Your task to perform on an android device: Open the phone app and click the voicemail tab. Image 0: 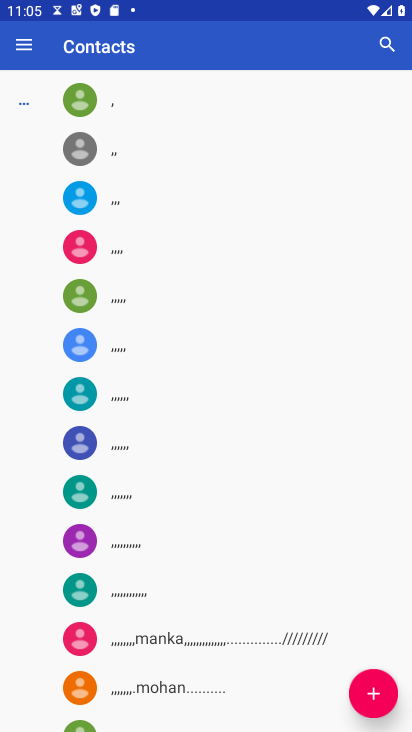
Step 0: press home button
Your task to perform on an android device: Open the phone app and click the voicemail tab. Image 1: 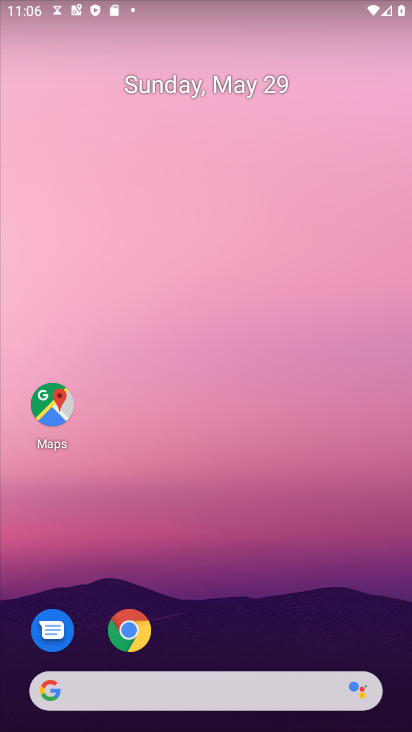
Step 1: drag from (257, 506) to (246, 0)
Your task to perform on an android device: Open the phone app and click the voicemail tab. Image 2: 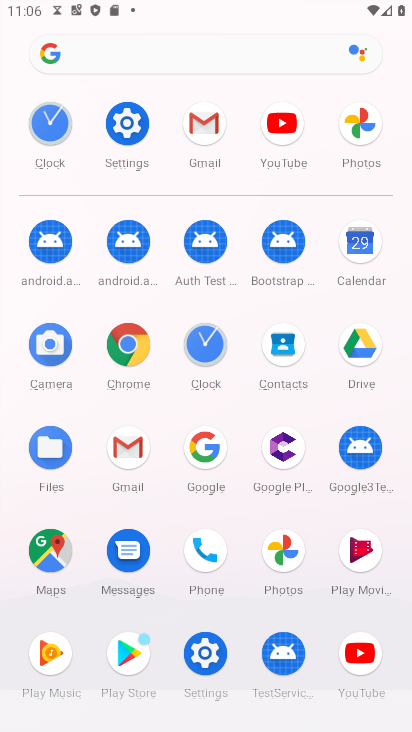
Step 2: click (194, 545)
Your task to perform on an android device: Open the phone app and click the voicemail tab. Image 3: 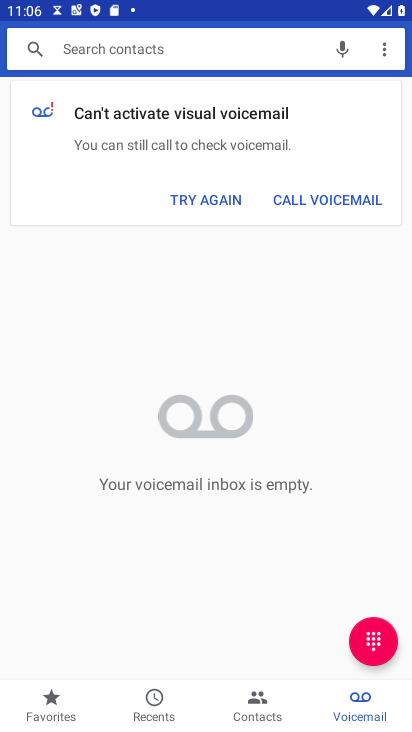
Step 3: task complete